Your task to perform on an android device: change the clock display to digital Image 0: 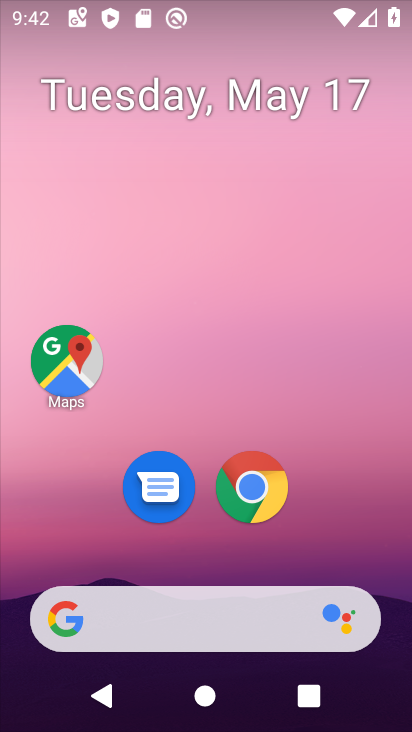
Step 0: drag from (201, 653) to (189, 232)
Your task to perform on an android device: change the clock display to digital Image 1: 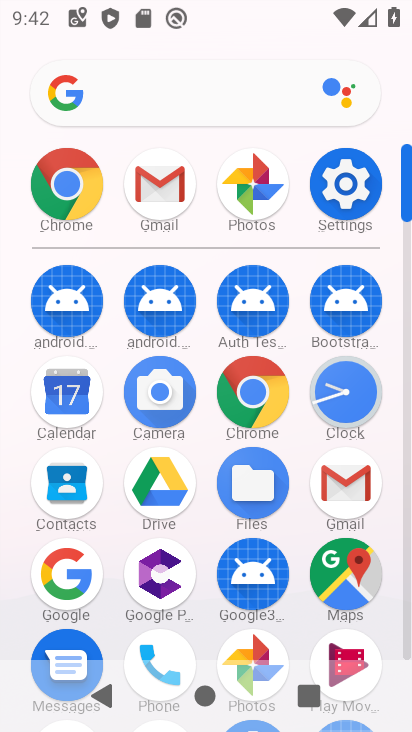
Step 1: click (366, 399)
Your task to perform on an android device: change the clock display to digital Image 2: 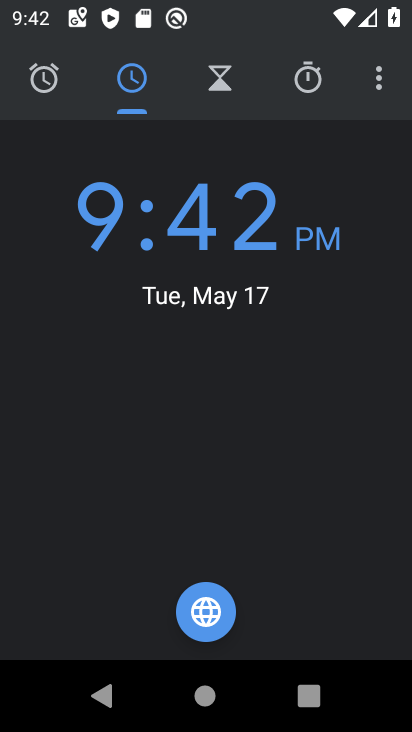
Step 2: click (383, 99)
Your task to perform on an android device: change the clock display to digital Image 3: 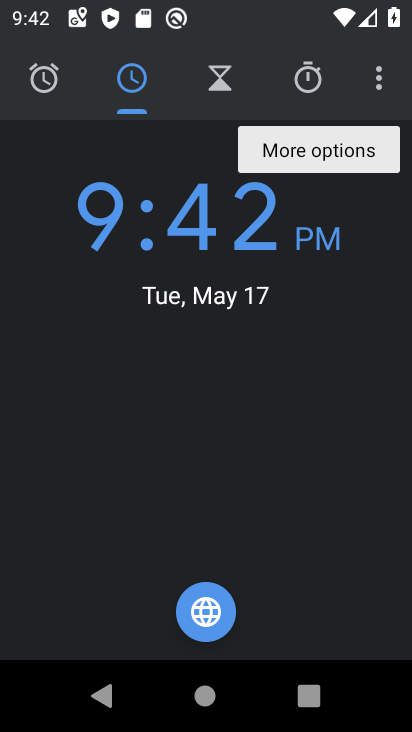
Step 3: click (372, 86)
Your task to perform on an android device: change the clock display to digital Image 4: 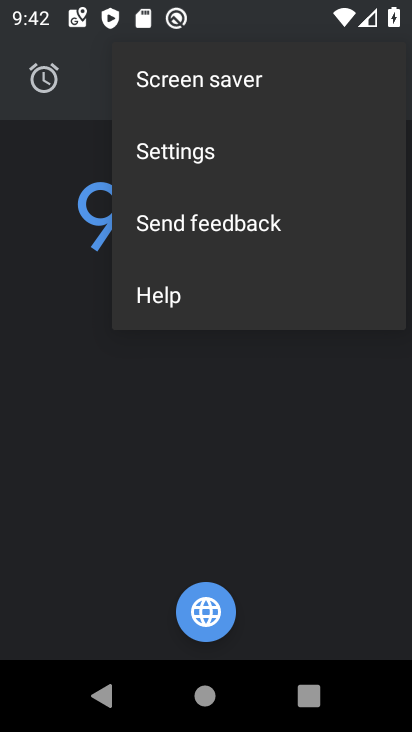
Step 4: click (236, 148)
Your task to perform on an android device: change the clock display to digital Image 5: 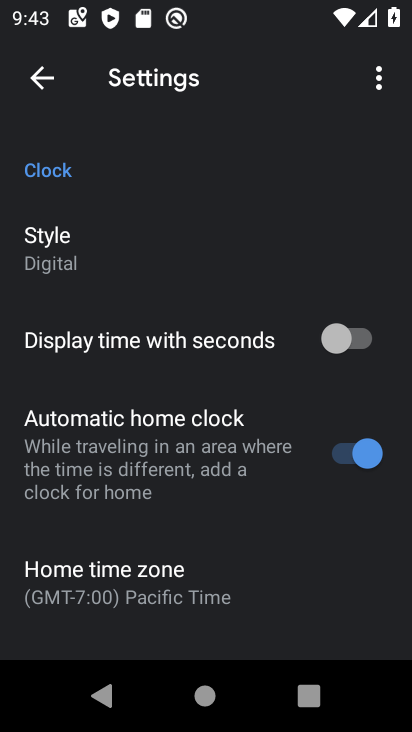
Step 5: click (139, 264)
Your task to perform on an android device: change the clock display to digital Image 6: 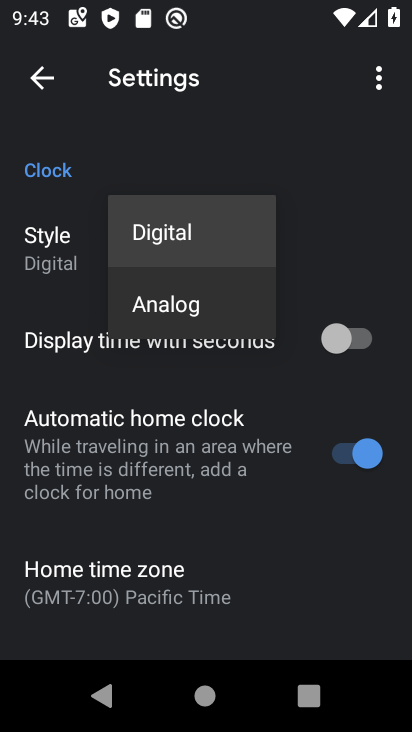
Step 6: click (184, 241)
Your task to perform on an android device: change the clock display to digital Image 7: 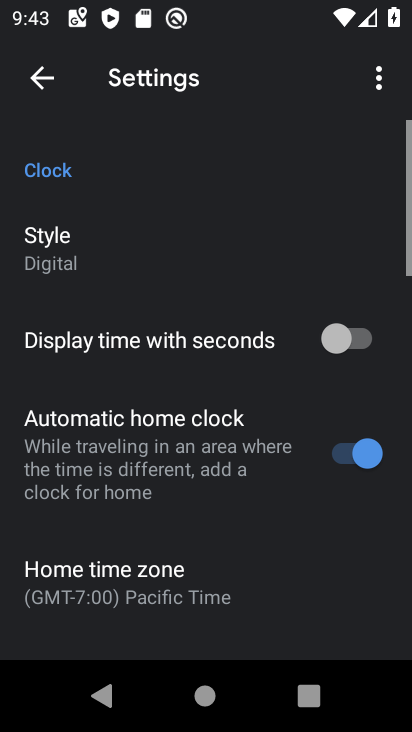
Step 7: task complete